Your task to perform on an android device: star an email in the gmail app Image 0: 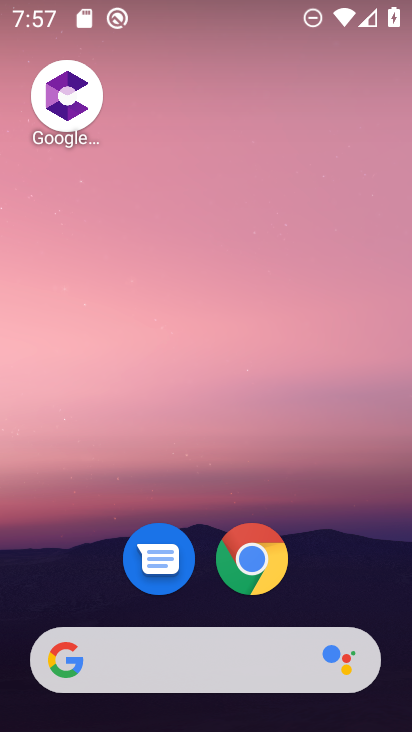
Step 0: drag from (80, 580) to (172, 28)
Your task to perform on an android device: star an email in the gmail app Image 1: 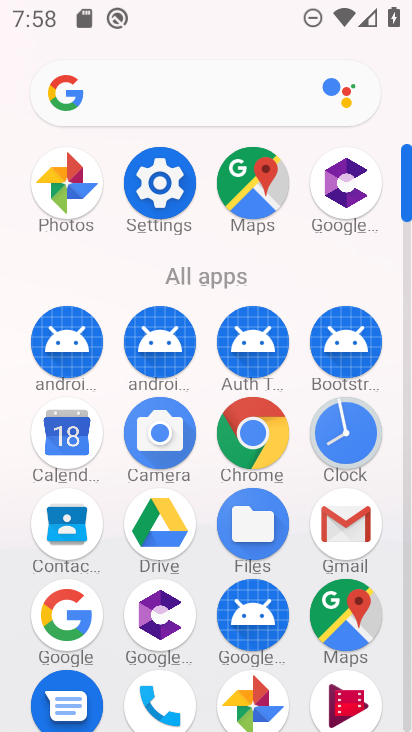
Step 1: click (325, 507)
Your task to perform on an android device: star an email in the gmail app Image 2: 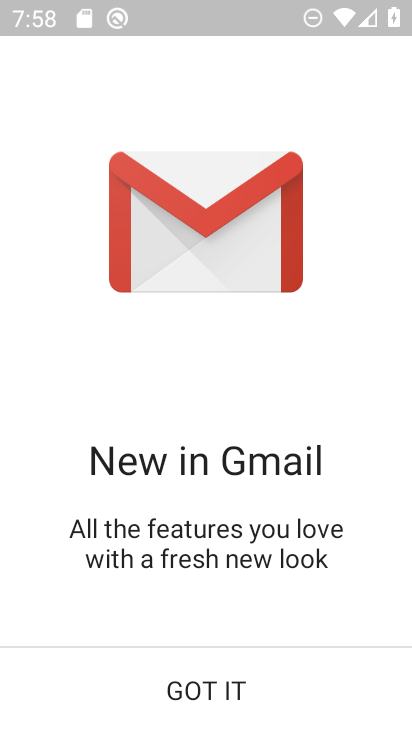
Step 2: click (207, 680)
Your task to perform on an android device: star an email in the gmail app Image 3: 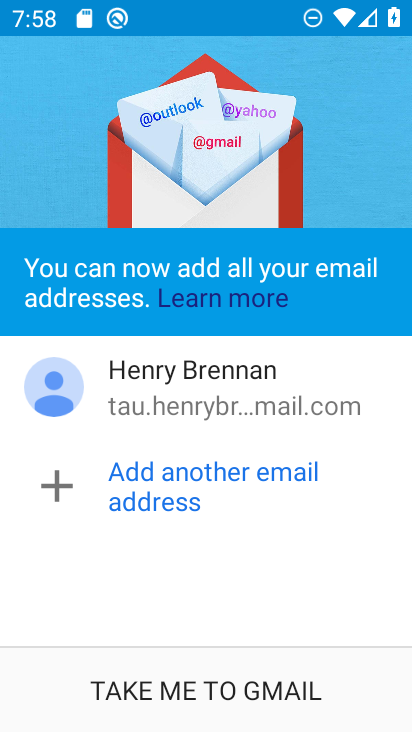
Step 3: click (192, 693)
Your task to perform on an android device: star an email in the gmail app Image 4: 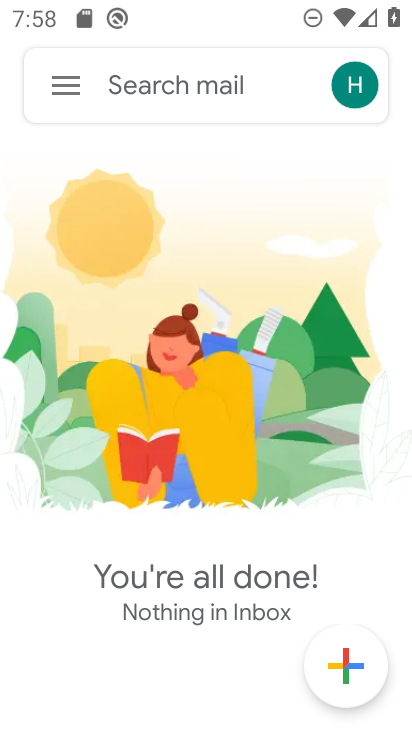
Step 4: click (61, 91)
Your task to perform on an android device: star an email in the gmail app Image 5: 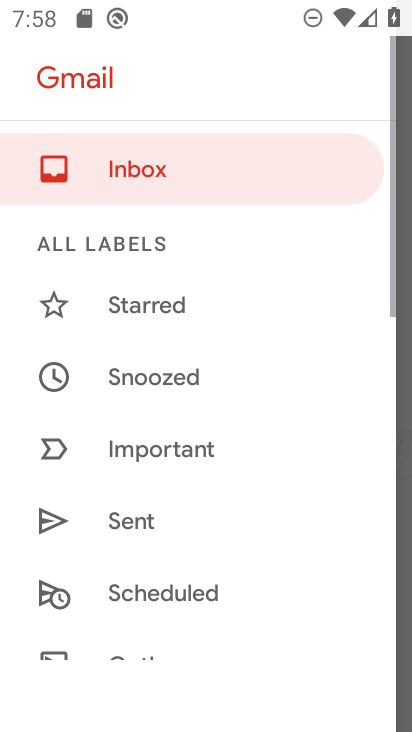
Step 5: drag from (169, 617) to (215, 120)
Your task to perform on an android device: star an email in the gmail app Image 6: 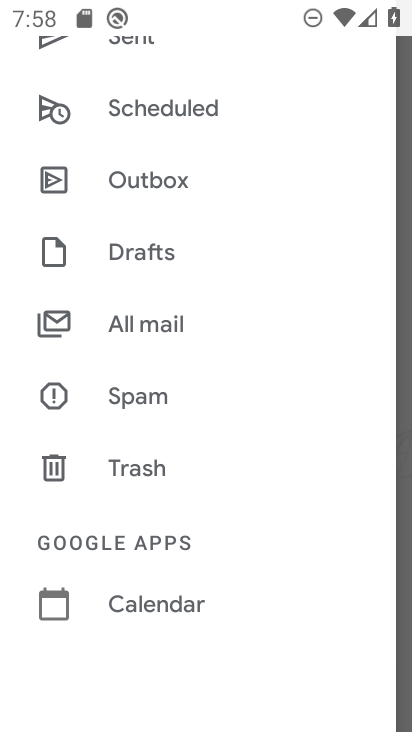
Step 6: click (146, 314)
Your task to perform on an android device: star an email in the gmail app Image 7: 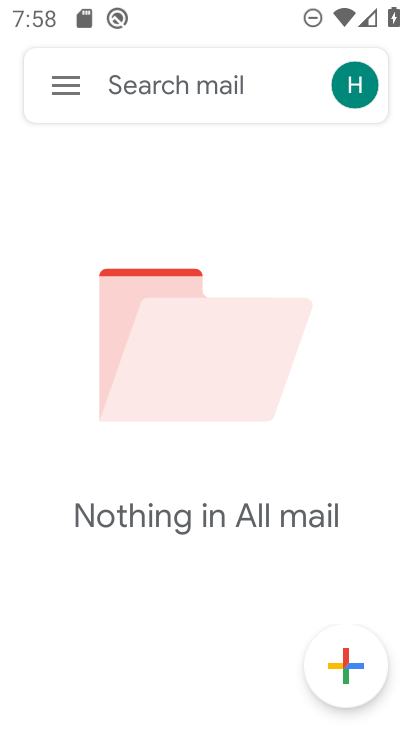
Step 7: task complete